Your task to perform on an android device: Search for sushi restaurants on Maps Image 0: 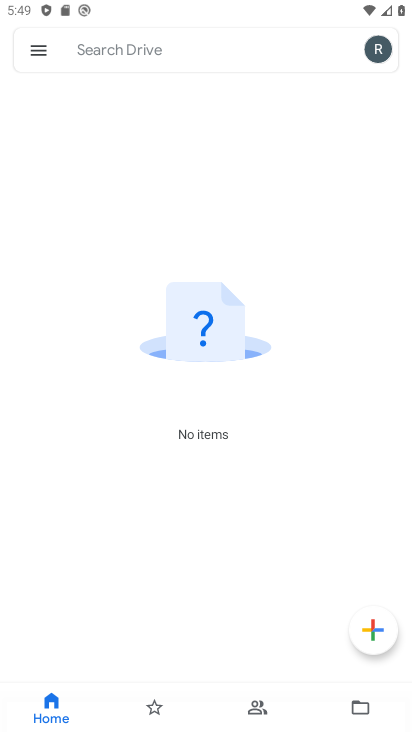
Step 0: press home button
Your task to perform on an android device: Search for sushi restaurants on Maps Image 1: 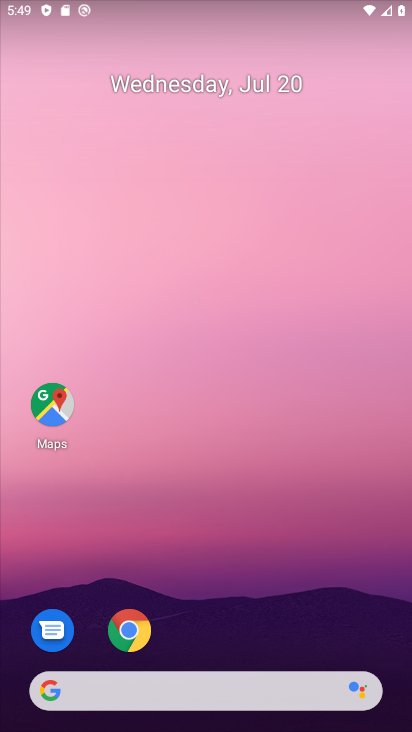
Step 1: drag from (126, 692) to (254, 8)
Your task to perform on an android device: Search for sushi restaurants on Maps Image 2: 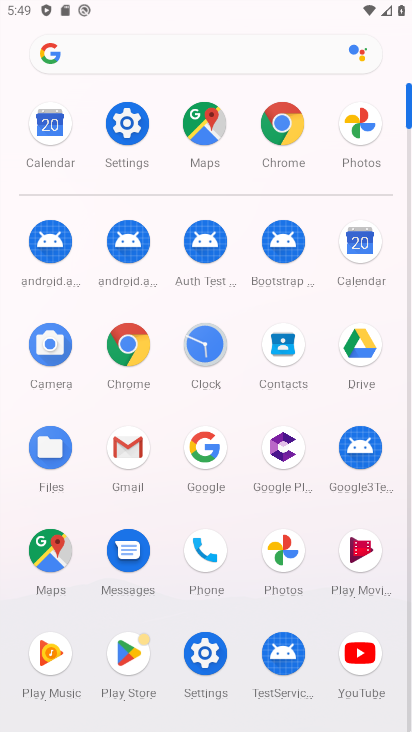
Step 2: click (49, 552)
Your task to perform on an android device: Search for sushi restaurants on Maps Image 3: 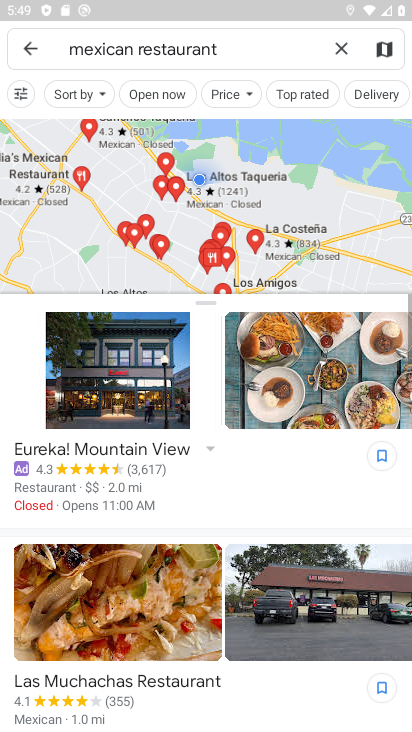
Step 3: click (346, 48)
Your task to perform on an android device: Search for sushi restaurants on Maps Image 4: 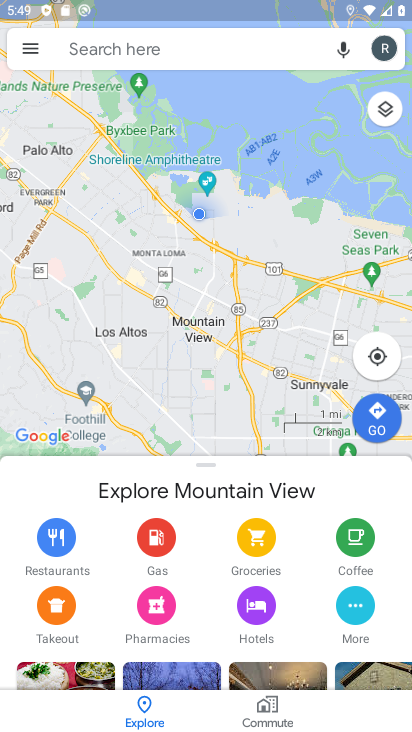
Step 4: click (212, 60)
Your task to perform on an android device: Search for sushi restaurants on Maps Image 5: 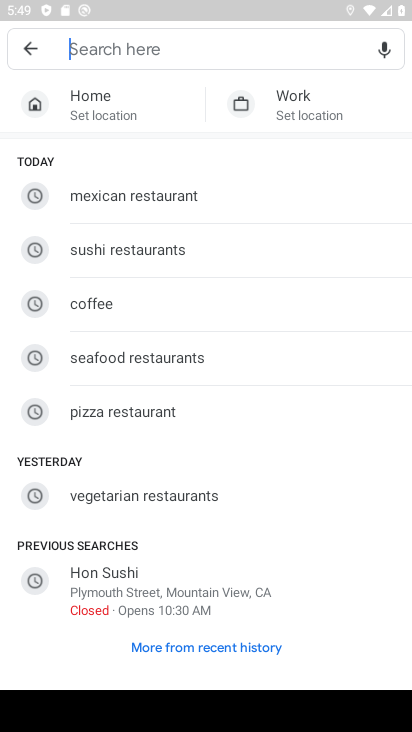
Step 5: click (163, 255)
Your task to perform on an android device: Search for sushi restaurants on Maps Image 6: 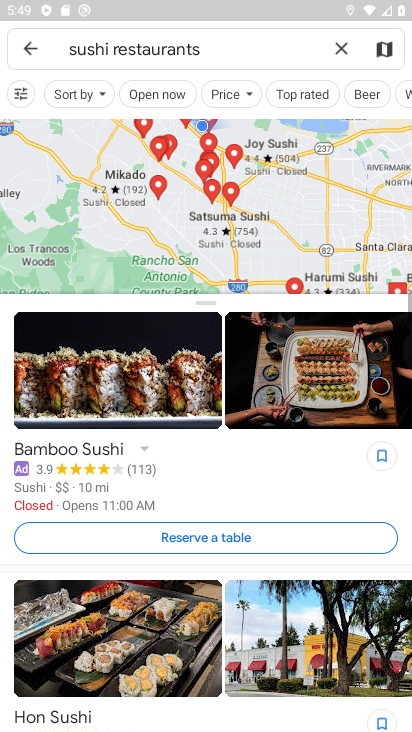
Step 6: task complete